Your task to perform on an android device: Open Yahoo.com Image 0: 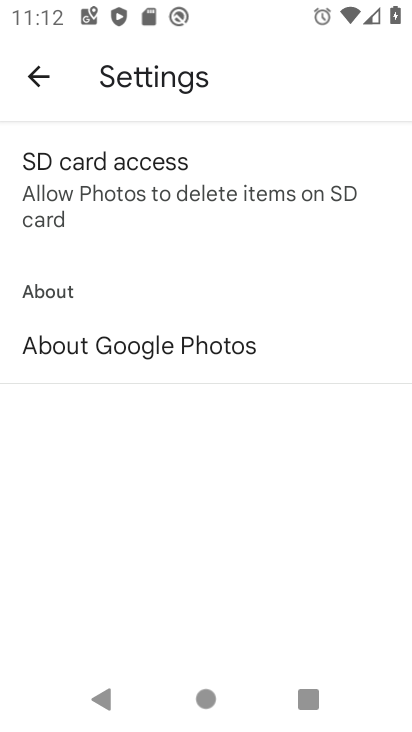
Step 0: press home button
Your task to perform on an android device: Open Yahoo.com Image 1: 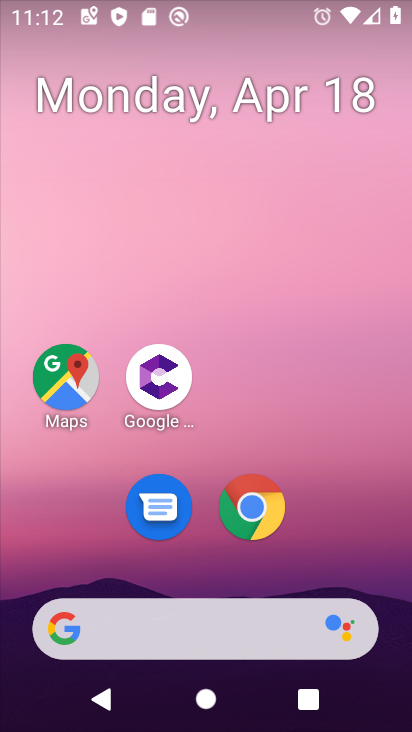
Step 1: drag from (285, 665) to (296, 158)
Your task to perform on an android device: Open Yahoo.com Image 2: 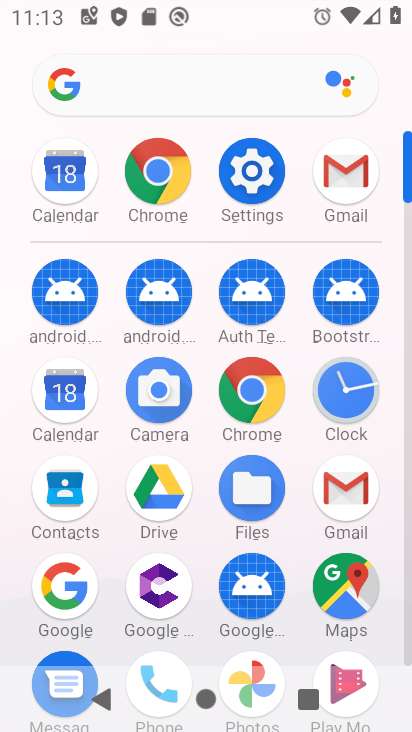
Step 2: click (171, 182)
Your task to perform on an android device: Open Yahoo.com Image 3: 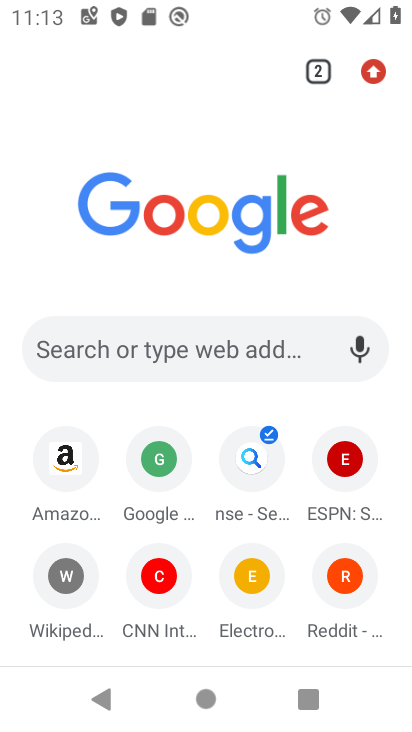
Step 3: click (169, 332)
Your task to perform on an android device: Open Yahoo.com Image 4: 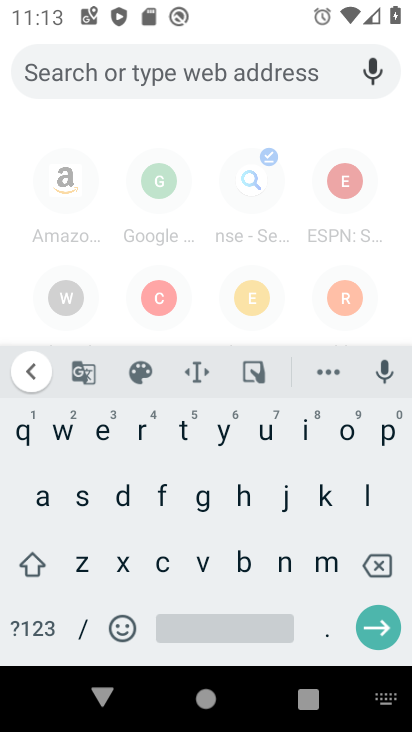
Step 4: click (231, 428)
Your task to perform on an android device: Open Yahoo.com Image 5: 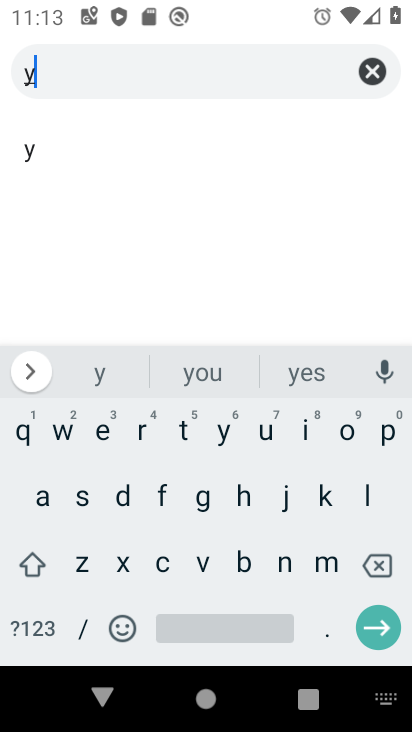
Step 5: click (45, 499)
Your task to perform on an android device: Open Yahoo.com Image 6: 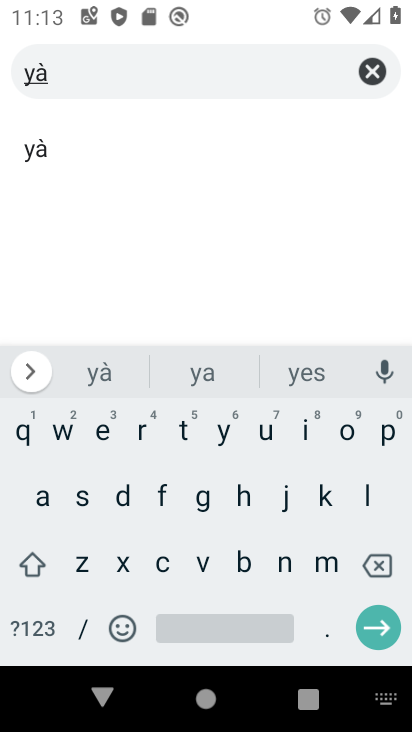
Step 6: click (373, 570)
Your task to perform on an android device: Open Yahoo.com Image 7: 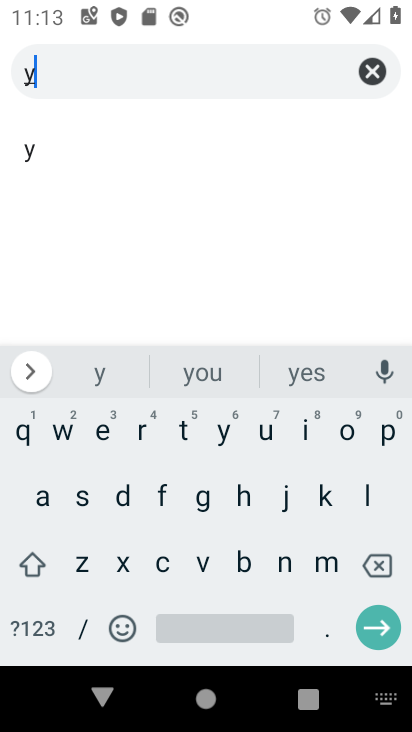
Step 7: click (49, 505)
Your task to perform on an android device: Open Yahoo.com Image 8: 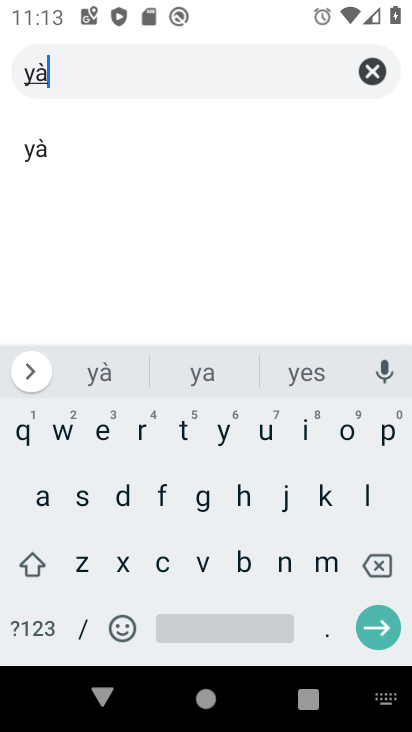
Step 8: click (376, 563)
Your task to perform on an android device: Open Yahoo.com Image 9: 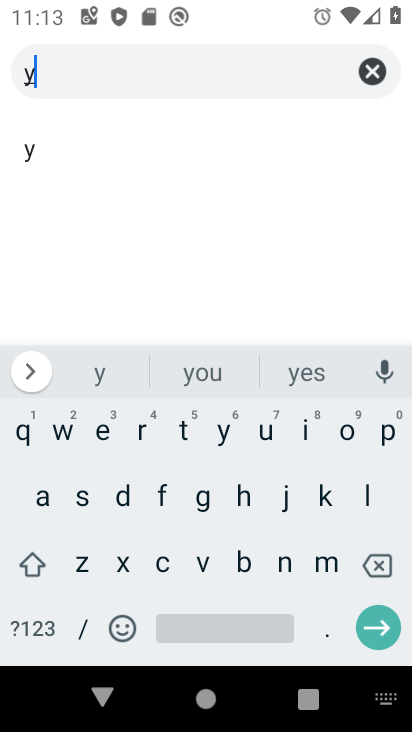
Step 9: click (45, 503)
Your task to perform on an android device: Open Yahoo.com Image 10: 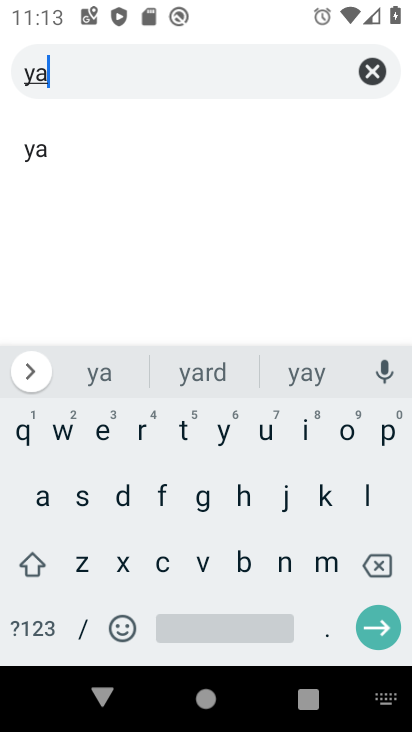
Step 10: click (239, 507)
Your task to perform on an android device: Open Yahoo.com Image 11: 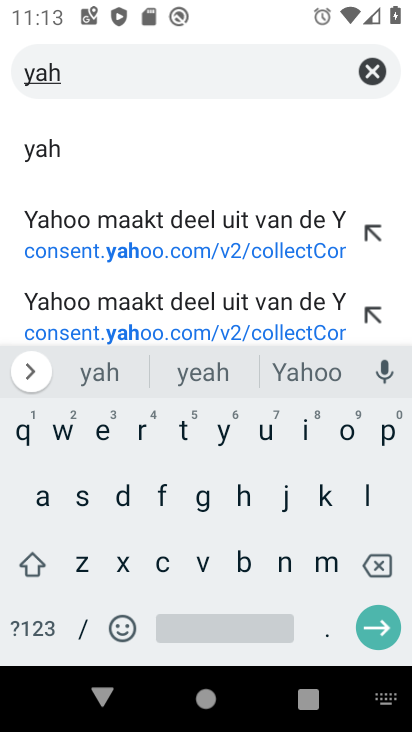
Step 11: click (322, 377)
Your task to perform on an android device: Open Yahoo.com Image 12: 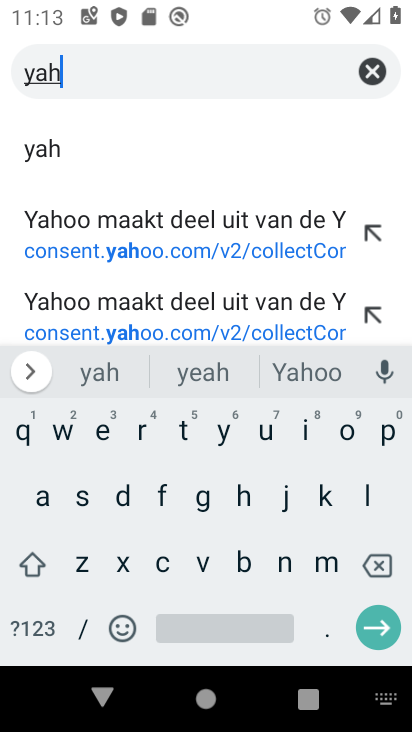
Step 12: click (322, 377)
Your task to perform on an android device: Open Yahoo.com Image 13: 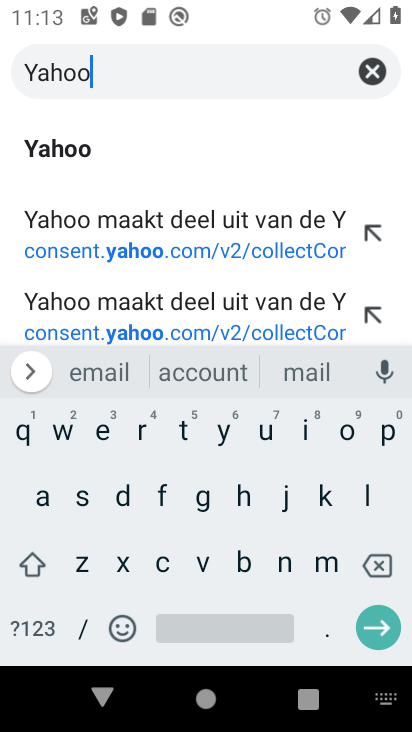
Step 13: click (369, 633)
Your task to perform on an android device: Open Yahoo.com Image 14: 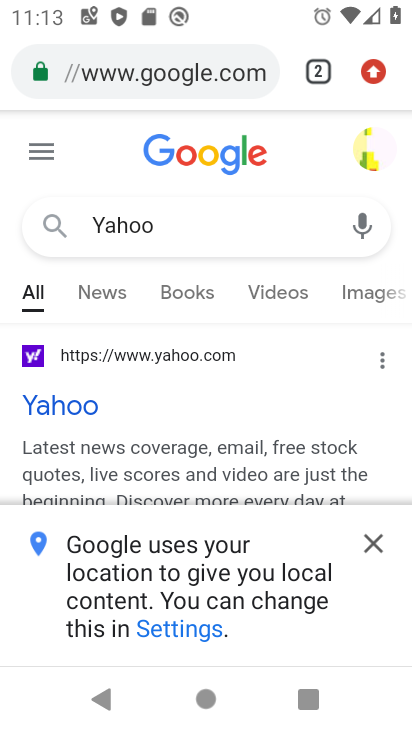
Step 14: click (379, 546)
Your task to perform on an android device: Open Yahoo.com Image 15: 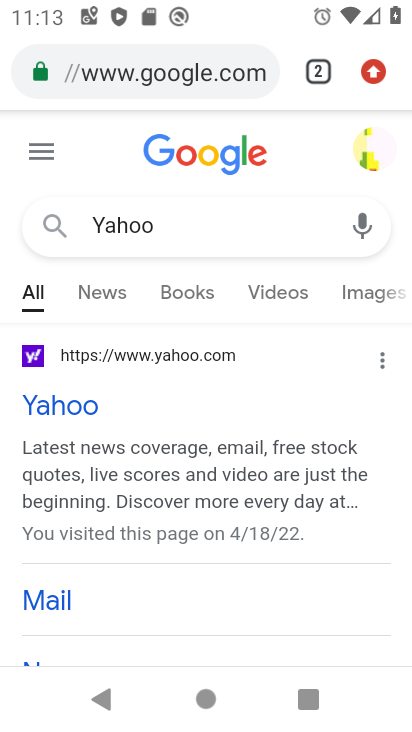
Step 15: click (83, 416)
Your task to perform on an android device: Open Yahoo.com Image 16: 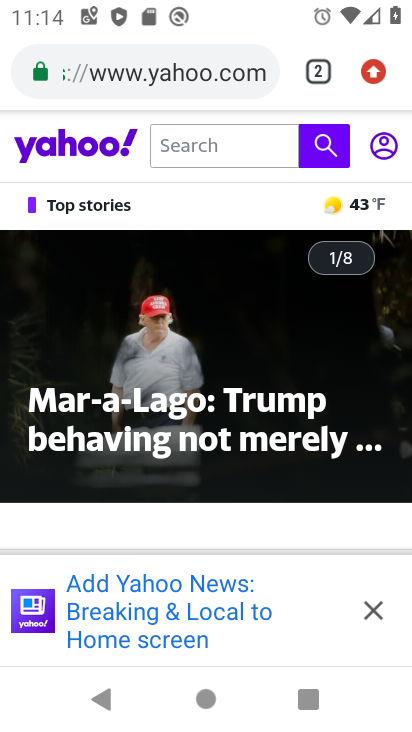
Step 16: task complete